Your task to perform on an android device: turn off picture-in-picture Image 0: 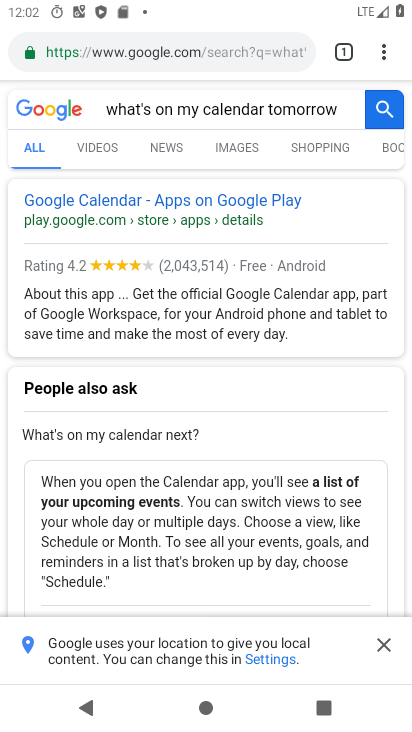
Step 0: press home button
Your task to perform on an android device: turn off picture-in-picture Image 1: 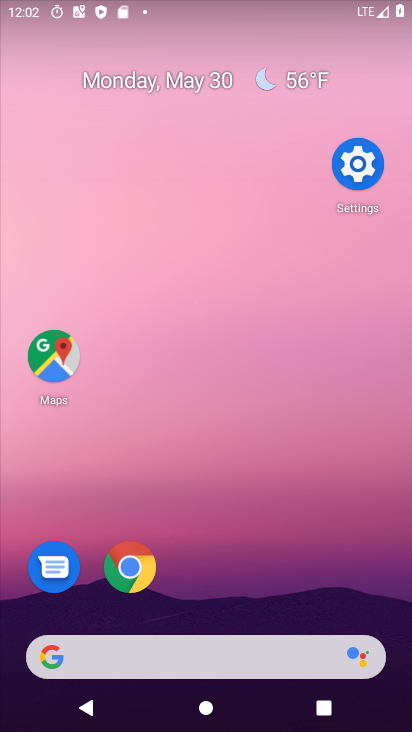
Step 1: drag from (309, 600) to (293, 203)
Your task to perform on an android device: turn off picture-in-picture Image 2: 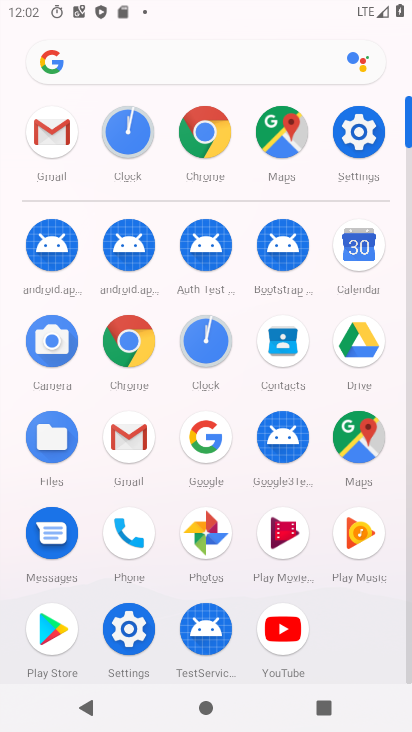
Step 2: click (347, 146)
Your task to perform on an android device: turn off picture-in-picture Image 3: 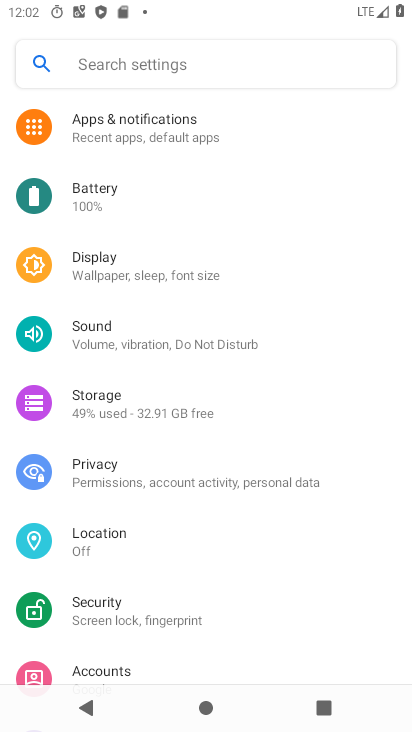
Step 3: click (184, 145)
Your task to perform on an android device: turn off picture-in-picture Image 4: 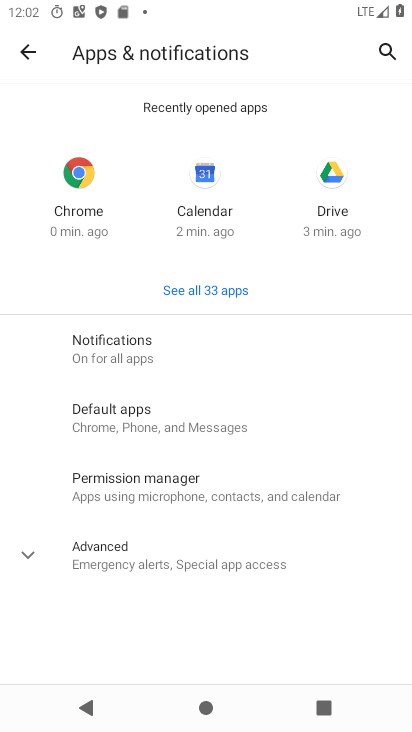
Step 4: click (243, 558)
Your task to perform on an android device: turn off picture-in-picture Image 5: 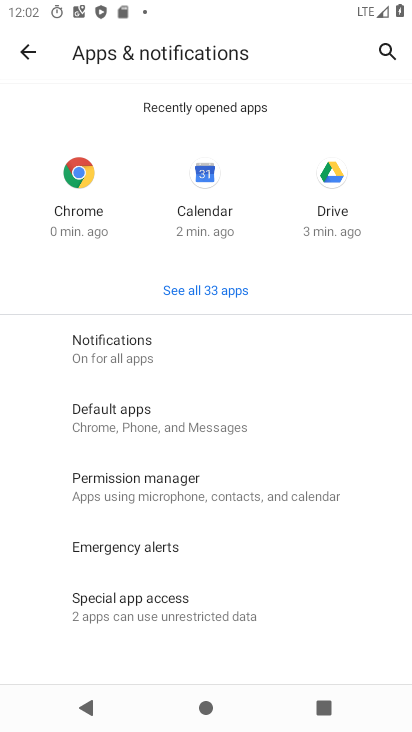
Step 5: click (207, 616)
Your task to perform on an android device: turn off picture-in-picture Image 6: 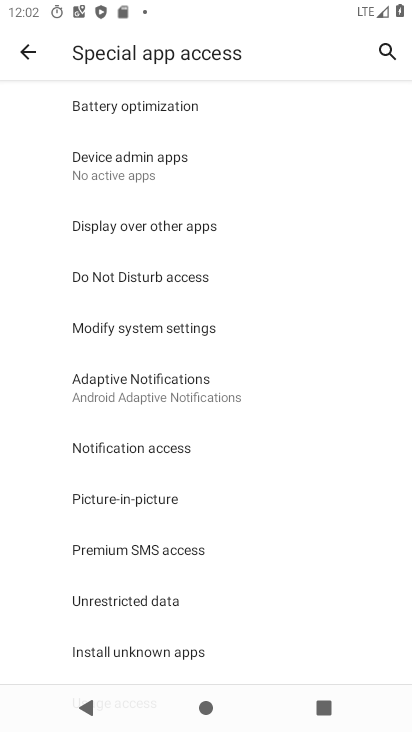
Step 6: click (182, 504)
Your task to perform on an android device: turn off picture-in-picture Image 7: 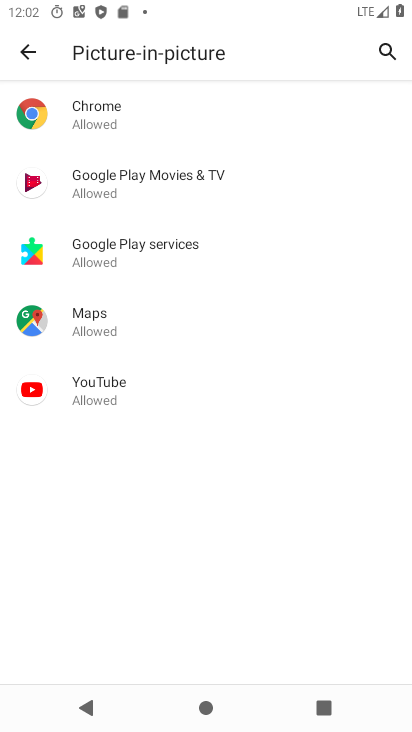
Step 7: click (142, 134)
Your task to perform on an android device: turn off picture-in-picture Image 8: 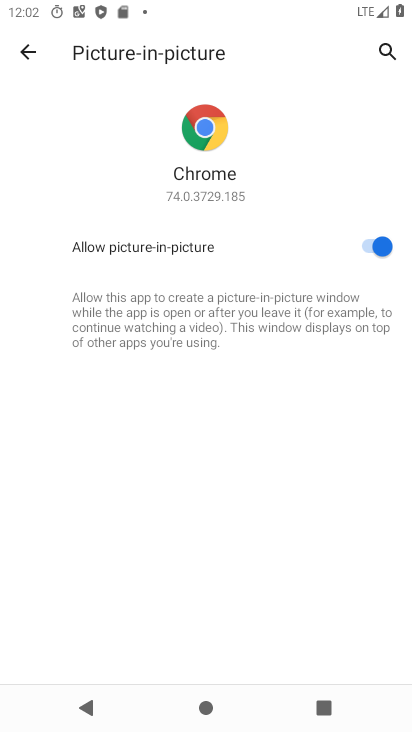
Step 8: click (364, 250)
Your task to perform on an android device: turn off picture-in-picture Image 9: 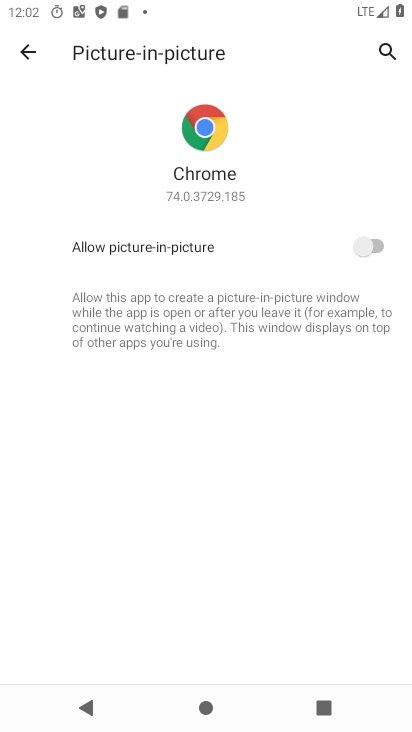
Step 9: task complete